Your task to perform on an android device: Check the weather Image 0: 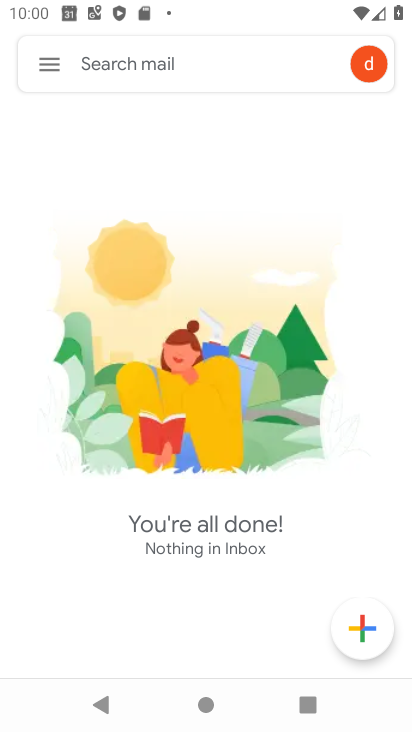
Step 0: press home button
Your task to perform on an android device: Check the weather Image 1: 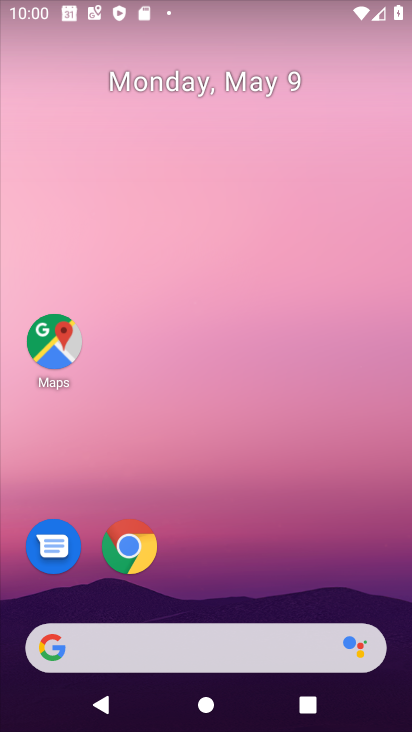
Step 1: click (166, 656)
Your task to perform on an android device: Check the weather Image 2: 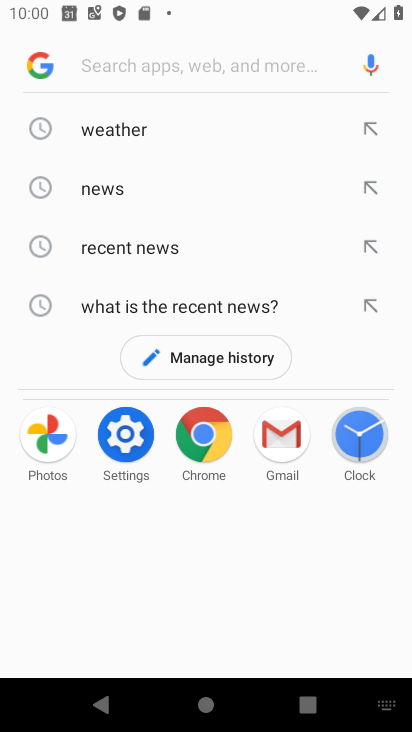
Step 2: type "Check the weather"
Your task to perform on an android device: Check the weather Image 3: 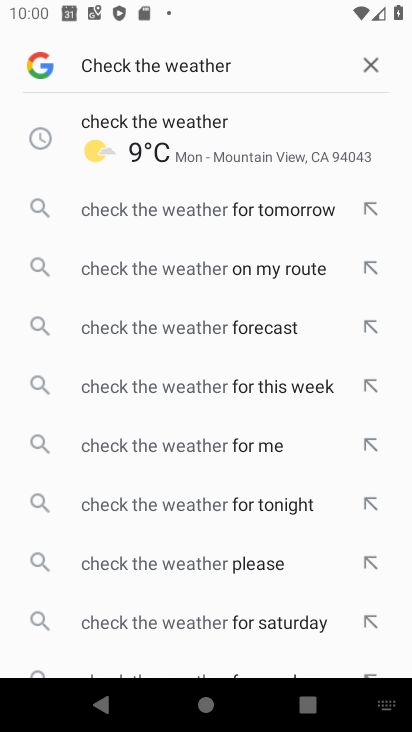
Step 3: click (114, 124)
Your task to perform on an android device: Check the weather Image 4: 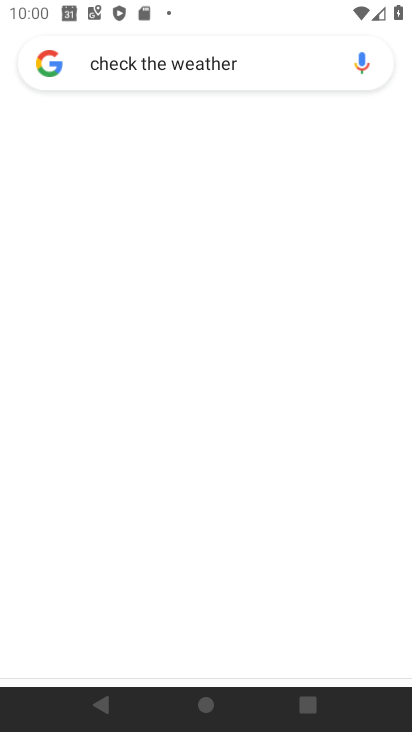
Step 4: click (221, 134)
Your task to perform on an android device: Check the weather Image 5: 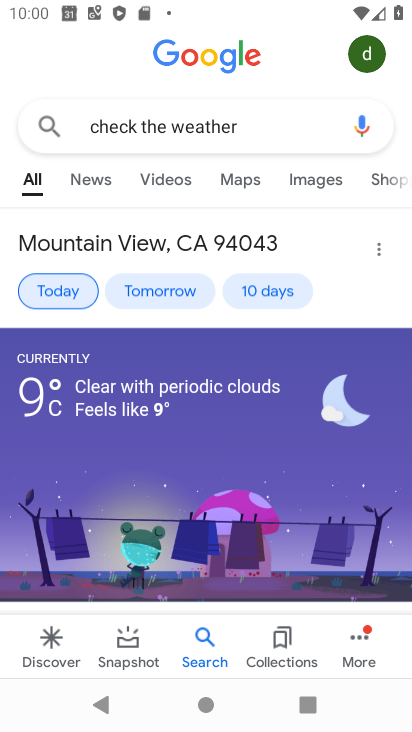
Step 5: task complete